Your task to perform on an android device: What's the weather today? Image 0: 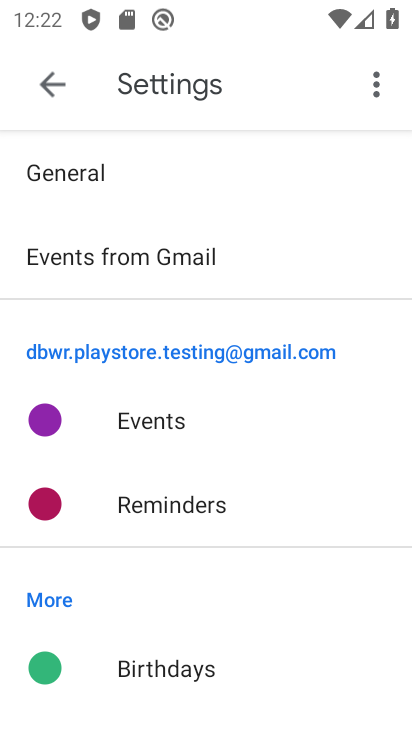
Step 0: press home button
Your task to perform on an android device: What's the weather today? Image 1: 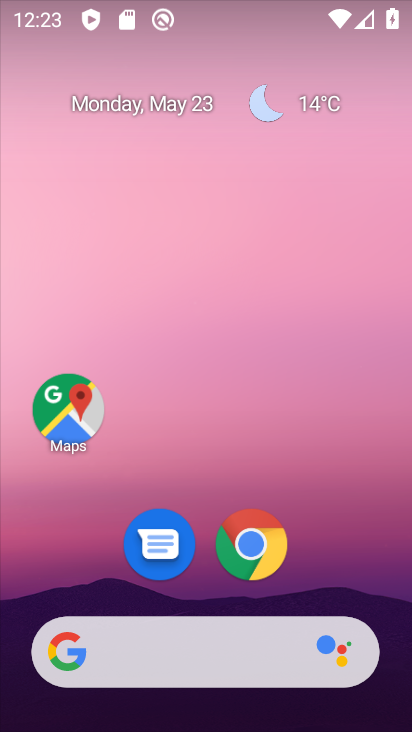
Step 1: drag from (339, 503) to (292, 83)
Your task to perform on an android device: What's the weather today? Image 2: 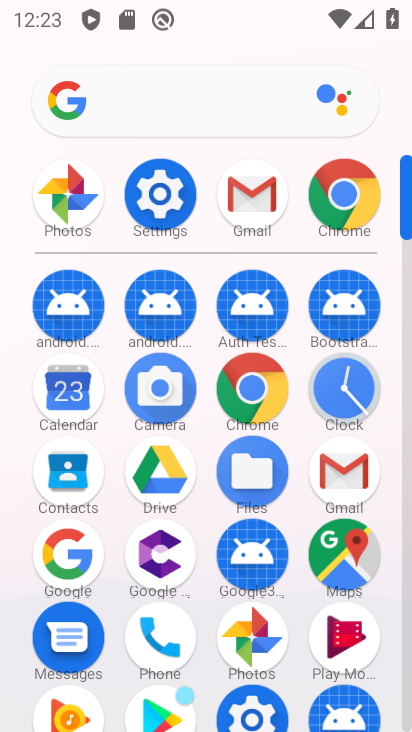
Step 2: press home button
Your task to perform on an android device: What's the weather today? Image 3: 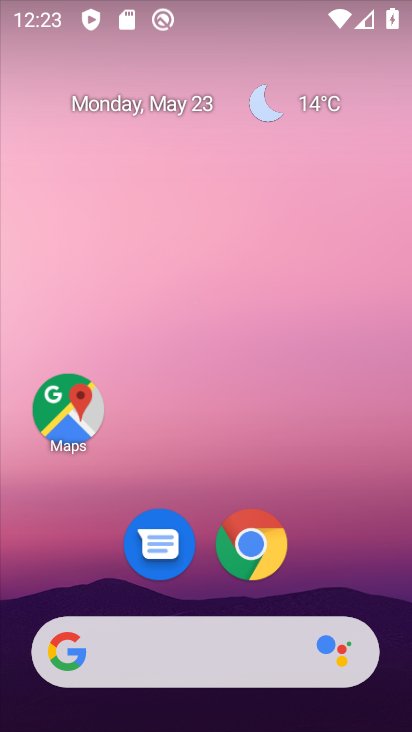
Step 3: click (327, 109)
Your task to perform on an android device: What's the weather today? Image 4: 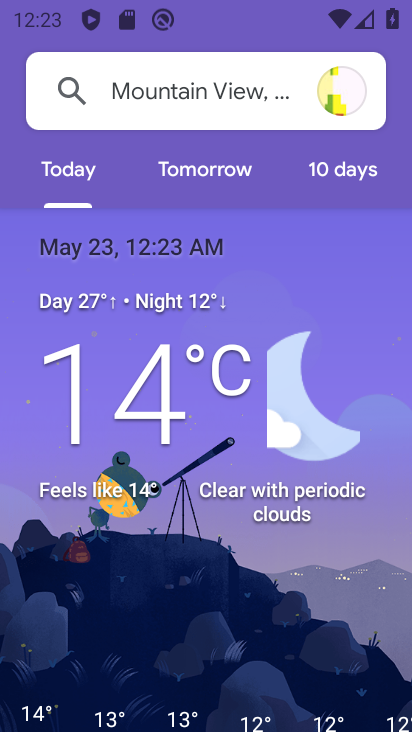
Step 4: task complete